Your task to perform on an android device: Open wifi settings Image 0: 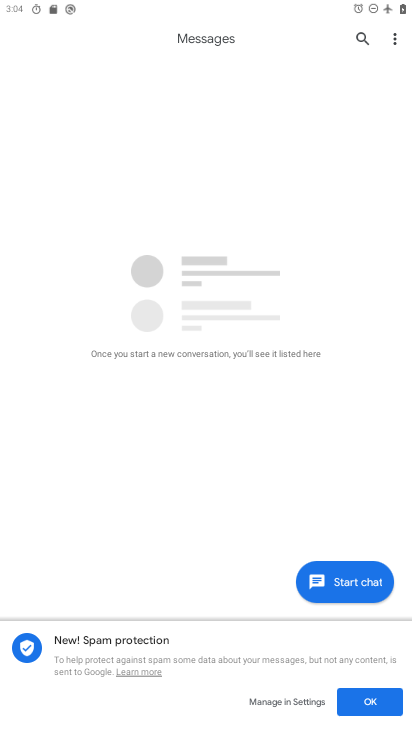
Step 0: press home button
Your task to perform on an android device: Open wifi settings Image 1: 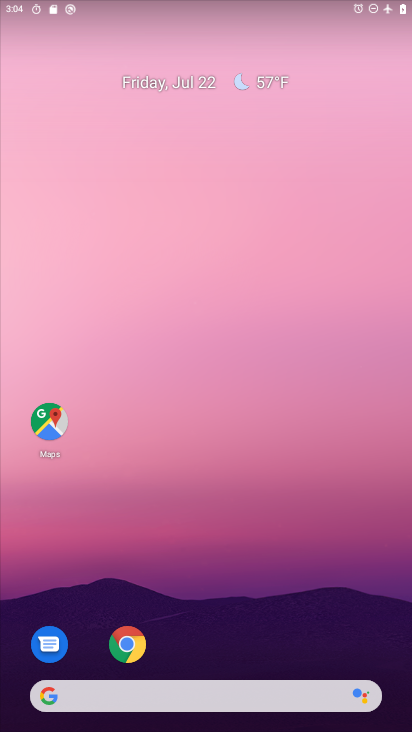
Step 1: drag from (221, 631) to (225, 266)
Your task to perform on an android device: Open wifi settings Image 2: 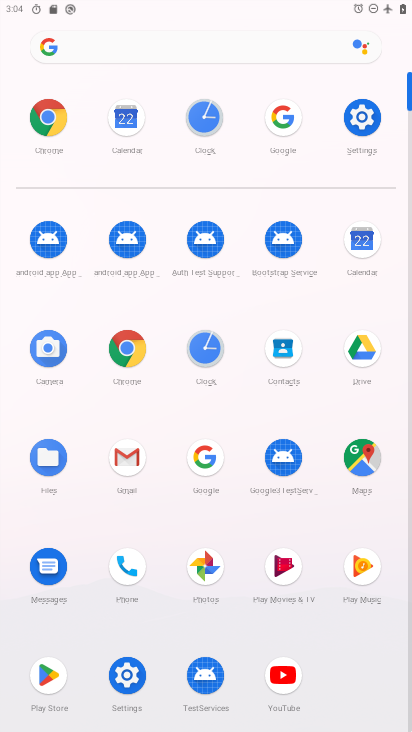
Step 2: click (348, 132)
Your task to perform on an android device: Open wifi settings Image 3: 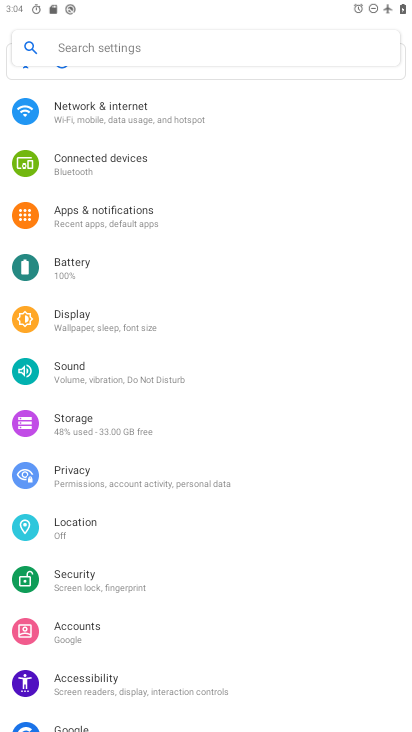
Step 3: click (158, 124)
Your task to perform on an android device: Open wifi settings Image 4: 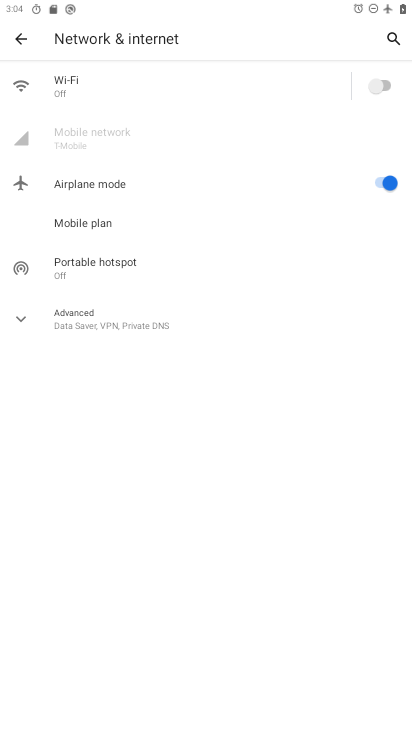
Step 4: click (87, 76)
Your task to perform on an android device: Open wifi settings Image 5: 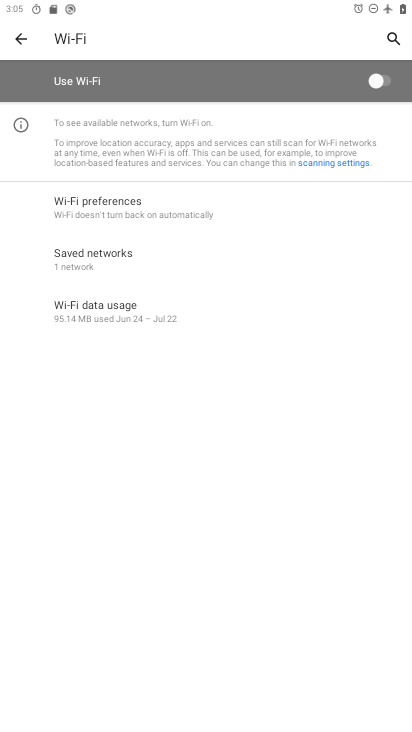
Step 5: task complete